Your task to perform on an android device: read, delete, or share a saved page in the chrome app Image 0: 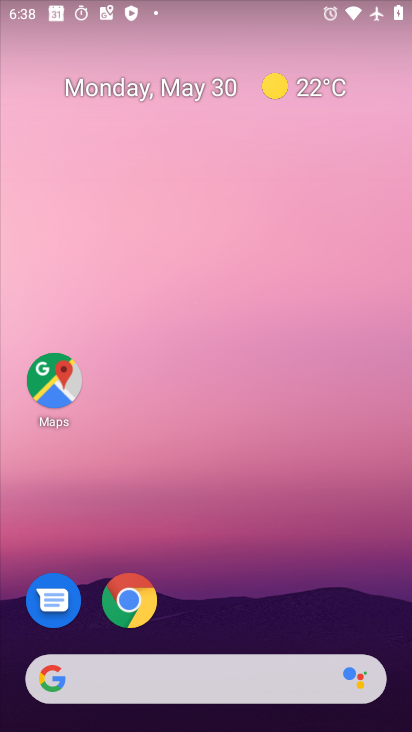
Step 0: click (134, 602)
Your task to perform on an android device: read, delete, or share a saved page in the chrome app Image 1: 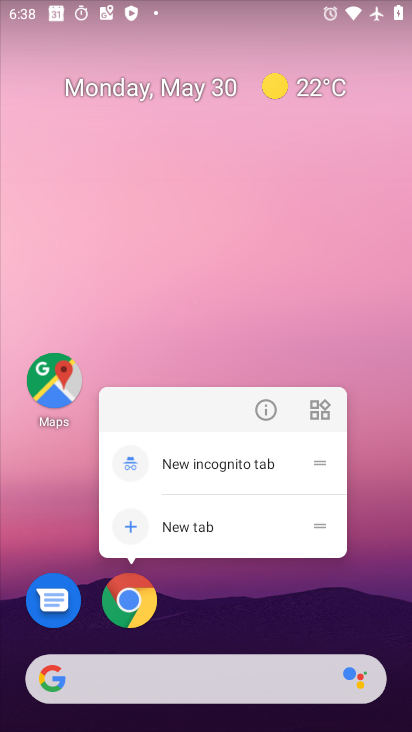
Step 1: click (132, 600)
Your task to perform on an android device: read, delete, or share a saved page in the chrome app Image 2: 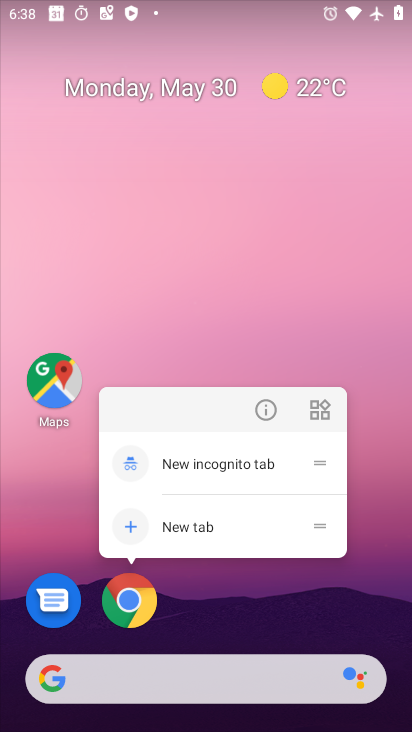
Step 2: click (347, 639)
Your task to perform on an android device: read, delete, or share a saved page in the chrome app Image 3: 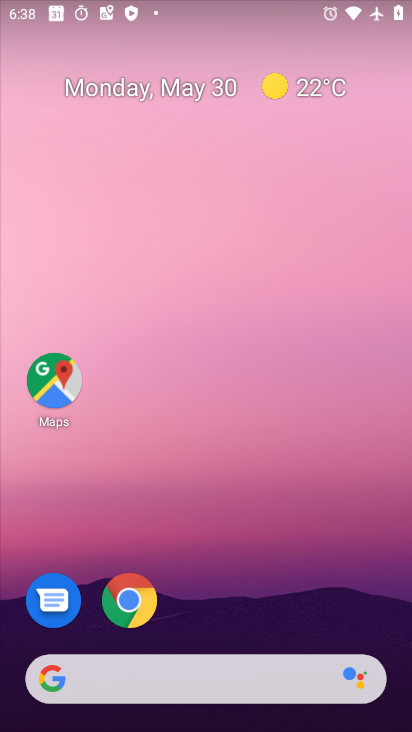
Step 3: drag from (348, 637) to (409, 27)
Your task to perform on an android device: read, delete, or share a saved page in the chrome app Image 4: 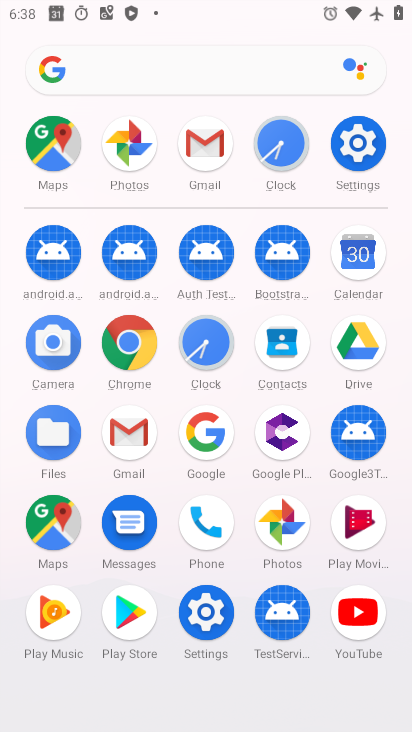
Step 4: click (144, 350)
Your task to perform on an android device: read, delete, or share a saved page in the chrome app Image 5: 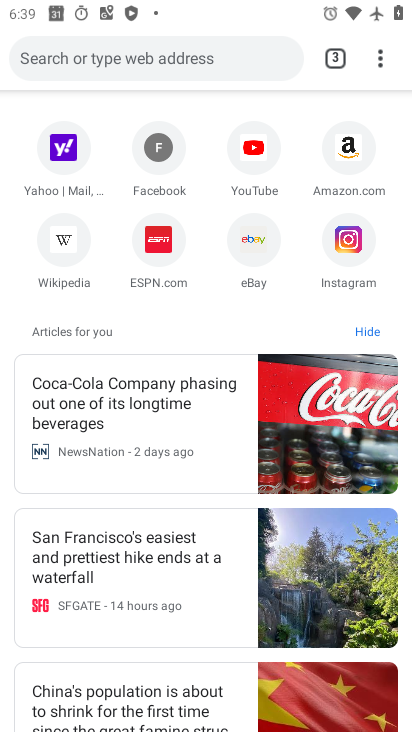
Step 5: drag from (383, 55) to (164, 385)
Your task to perform on an android device: read, delete, or share a saved page in the chrome app Image 6: 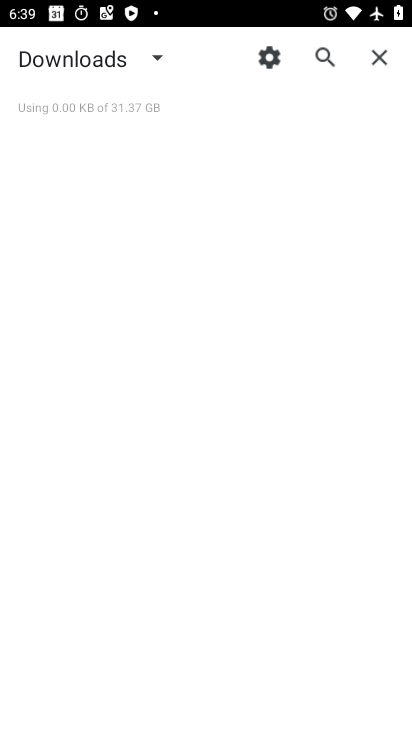
Step 6: click (162, 51)
Your task to perform on an android device: read, delete, or share a saved page in the chrome app Image 7: 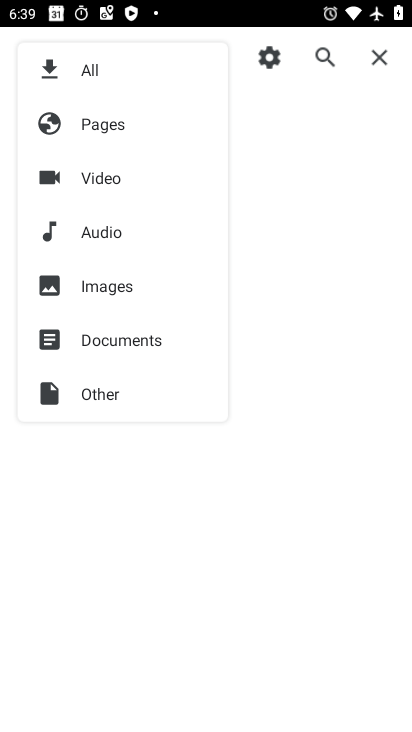
Step 7: click (86, 131)
Your task to perform on an android device: read, delete, or share a saved page in the chrome app Image 8: 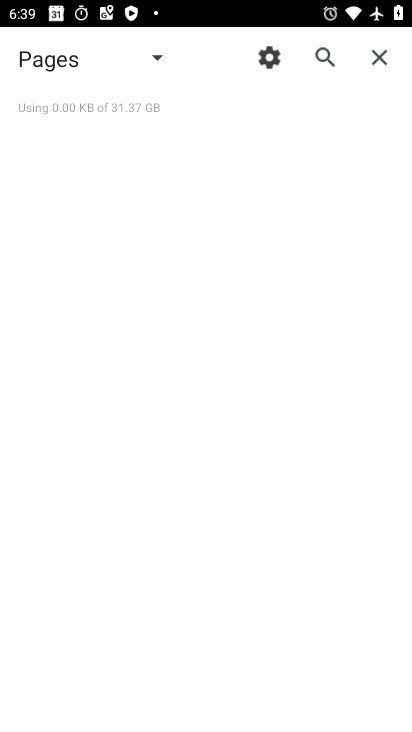
Step 8: task complete